Your task to perform on an android device: Go to display settings Image 0: 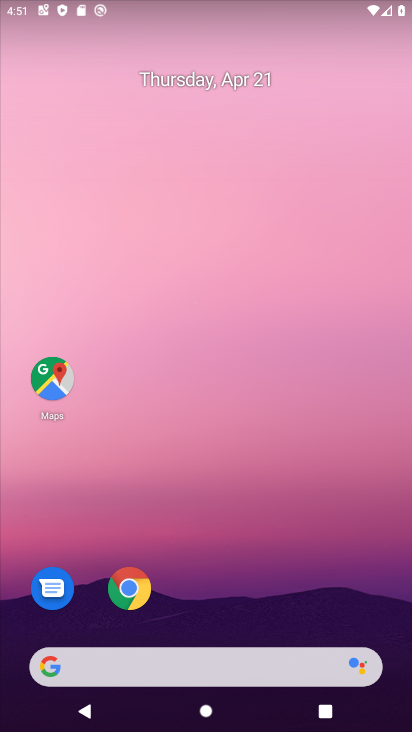
Step 0: drag from (183, 32) to (202, 497)
Your task to perform on an android device: Go to display settings Image 1: 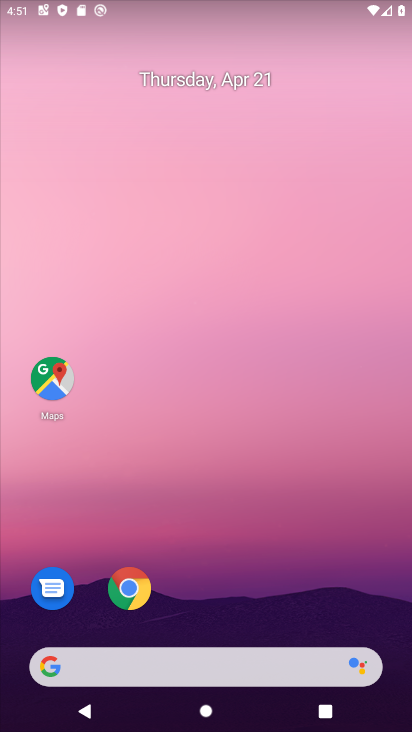
Step 1: drag from (245, 496) to (303, 161)
Your task to perform on an android device: Go to display settings Image 2: 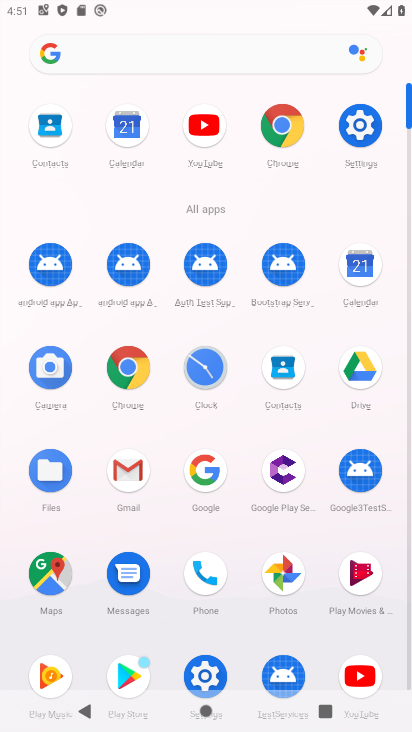
Step 2: click (376, 117)
Your task to perform on an android device: Go to display settings Image 3: 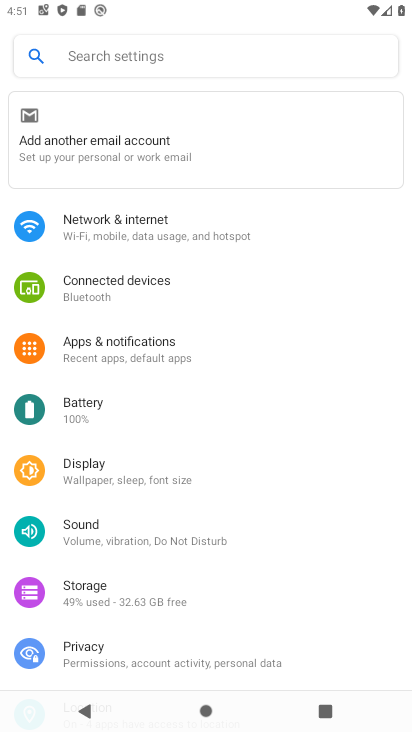
Step 3: click (130, 466)
Your task to perform on an android device: Go to display settings Image 4: 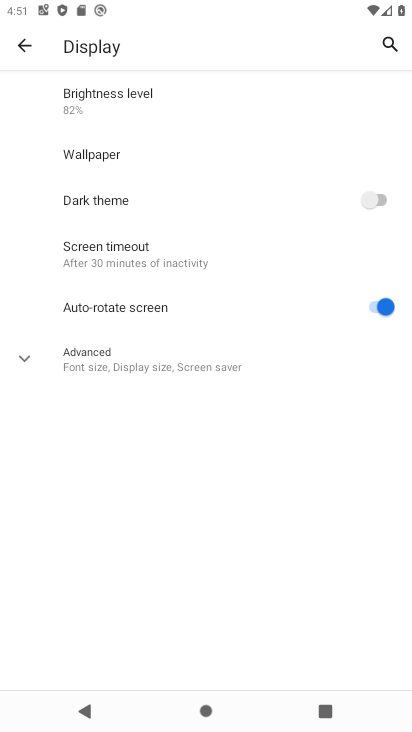
Step 4: task complete